Your task to perform on an android device: Go to location settings Image 0: 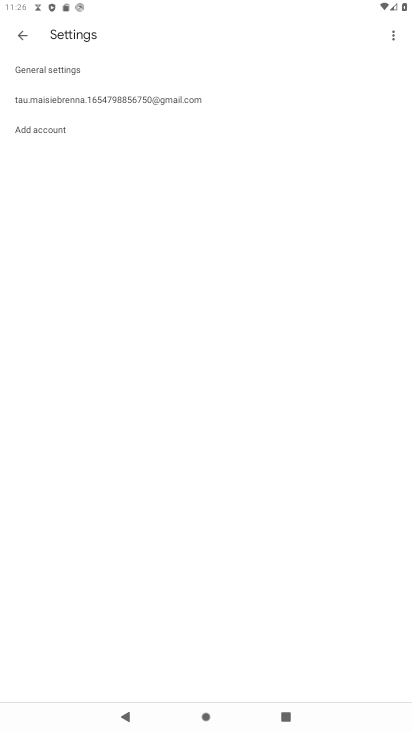
Step 0: press home button
Your task to perform on an android device: Go to location settings Image 1: 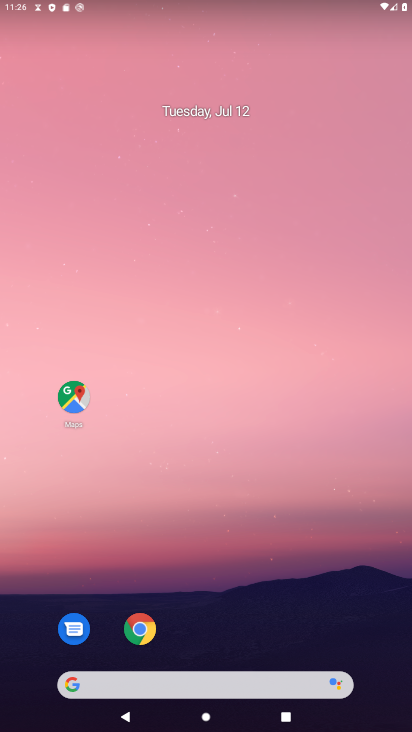
Step 1: click (342, 13)
Your task to perform on an android device: Go to location settings Image 2: 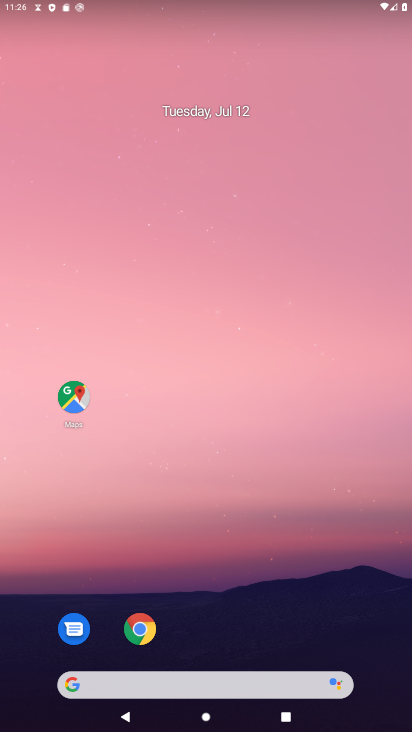
Step 2: drag from (332, 612) to (403, 86)
Your task to perform on an android device: Go to location settings Image 3: 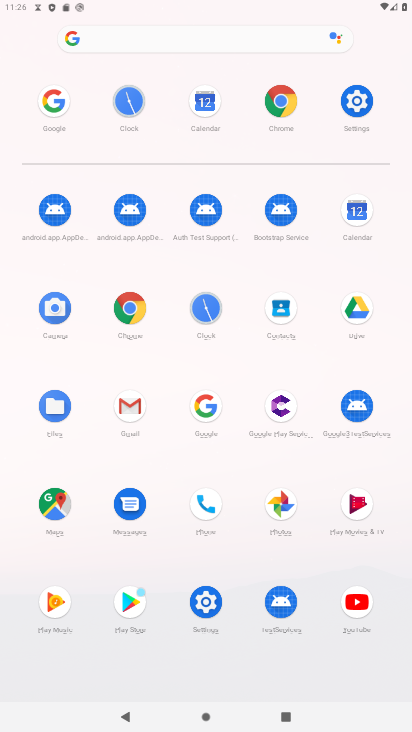
Step 3: click (375, 102)
Your task to perform on an android device: Go to location settings Image 4: 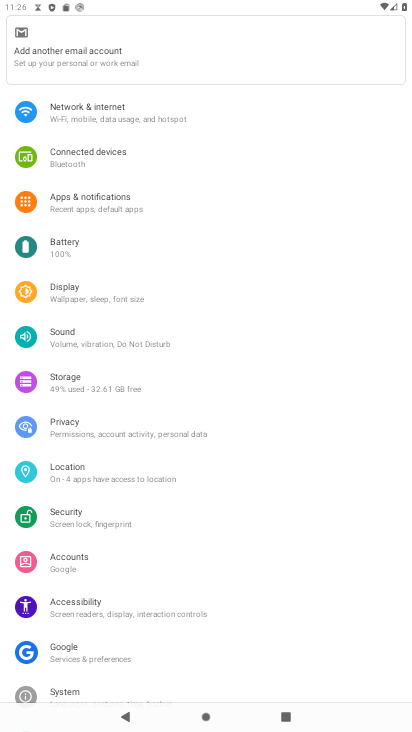
Step 4: click (57, 486)
Your task to perform on an android device: Go to location settings Image 5: 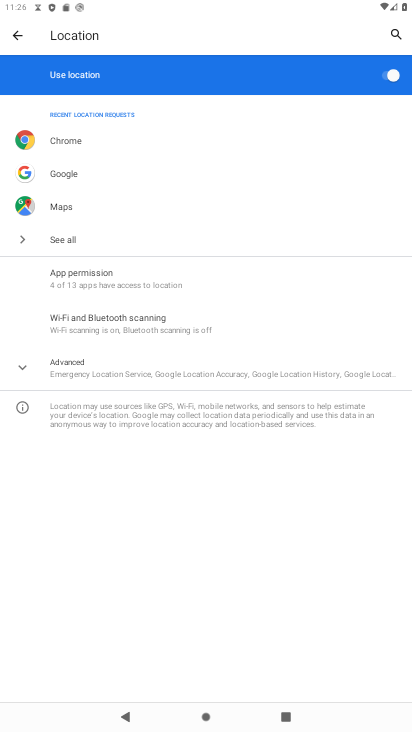
Step 5: task complete